Your task to perform on an android device: toggle wifi Image 0: 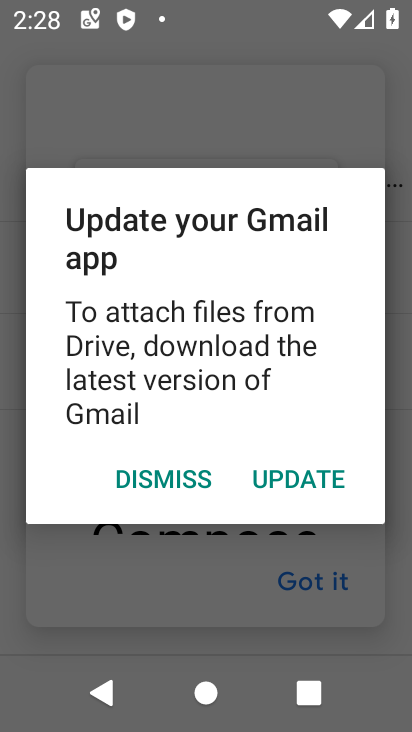
Step 0: drag from (347, 14) to (354, 458)
Your task to perform on an android device: toggle wifi Image 1: 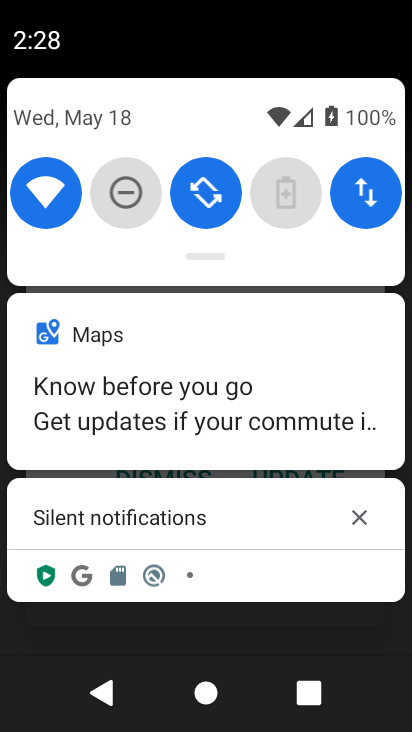
Step 1: click (68, 187)
Your task to perform on an android device: toggle wifi Image 2: 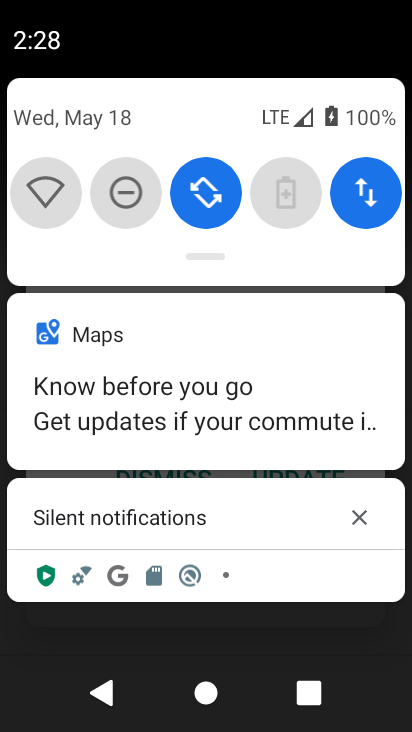
Step 2: task complete